Your task to perform on an android device: Clear all items from cart on ebay.com. Search for razer nari on ebay.com, select the first entry, and add it to the cart. Image 0: 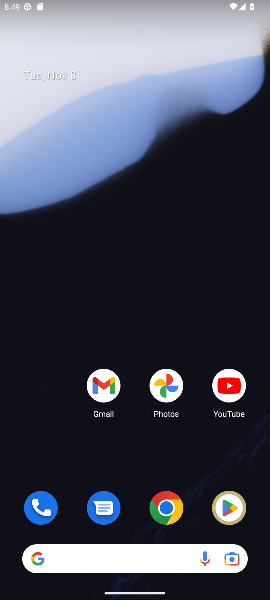
Step 0: click (150, 512)
Your task to perform on an android device: Clear all items from cart on ebay.com. Search for razer nari on ebay.com, select the first entry, and add it to the cart. Image 1: 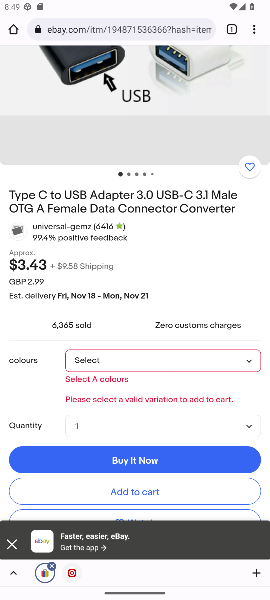
Step 1: click (107, 24)
Your task to perform on an android device: Clear all items from cart on ebay.com. Search for razer nari on ebay.com, select the first entry, and add it to the cart. Image 2: 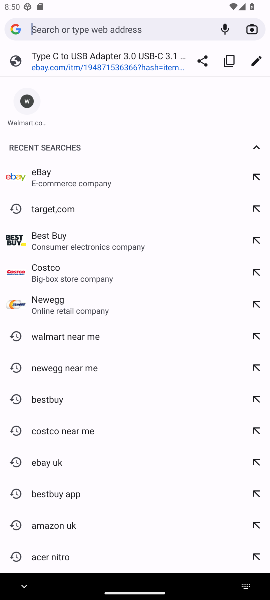
Step 2: click (61, 174)
Your task to perform on an android device: Clear all items from cart on ebay.com. Search for razer nari on ebay.com, select the first entry, and add it to the cart. Image 3: 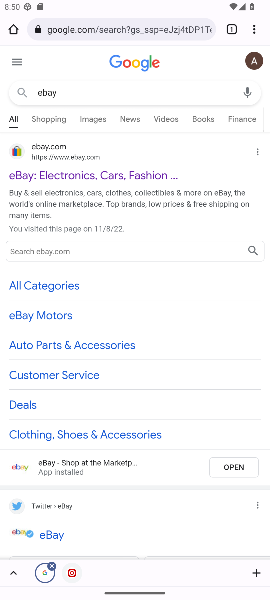
Step 3: click (72, 172)
Your task to perform on an android device: Clear all items from cart on ebay.com. Search for razer nari on ebay.com, select the first entry, and add it to the cart. Image 4: 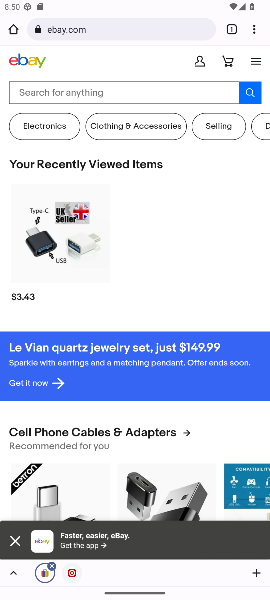
Step 4: click (154, 88)
Your task to perform on an android device: Clear all items from cart on ebay.com. Search for razer nari on ebay.com, select the first entry, and add it to the cart. Image 5: 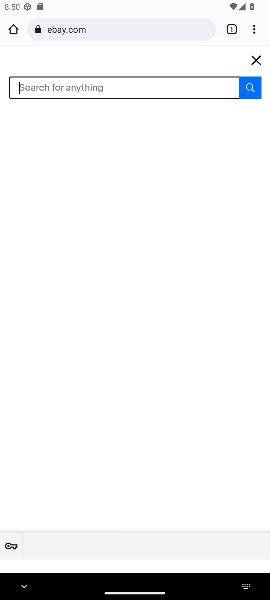
Step 5: type "razer nari"
Your task to perform on an android device: Clear all items from cart on ebay.com. Search for razer nari on ebay.com, select the first entry, and add it to the cart. Image 6: 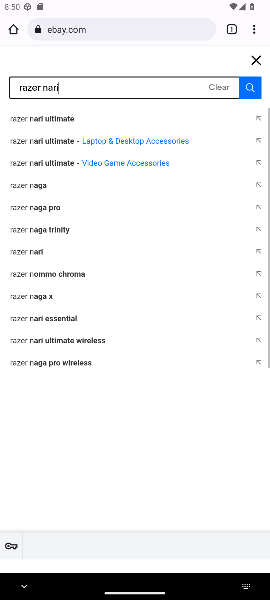
Step 6: click (29, 254)
Your task to perform on an android device: Clear all items from cart on ebay.com. Search for razer nari on ebay.com, select the first entry, and add it to the cart. Image 7: 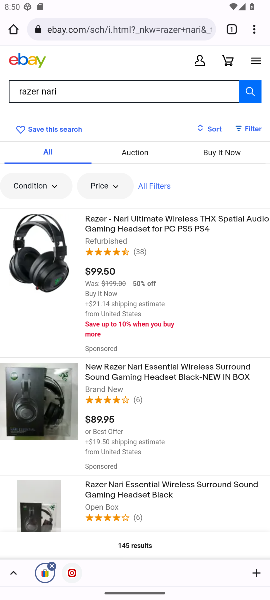
Step 7: click (128, 222)
Your task to perform on an android device: Clear all items from cart on ebay.com. Search for razer nari on ebay.com, select the first entry, and add it to the cart. Image 8: 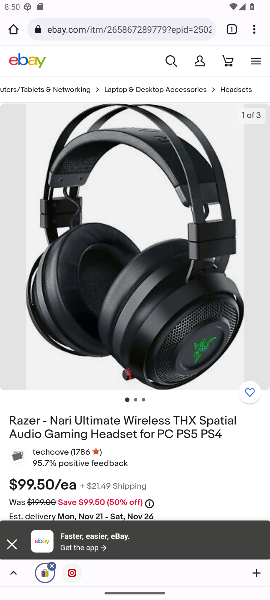
Step 8: drag from (118, 445) to (126, 266)
Your task to perform on an android device: Clear all items from cart on ebay.com. Search for razer nari on ebay.com, select the first entry, and add it to the cart. Image 9: 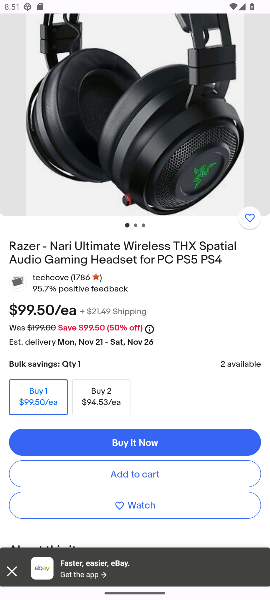
Step 9: click (131, 470)
Your task to perform on an android device: Clear all items from cart on ebay.com. Search for razer nari on ebay.com, select the first entry, and add it to the cart. Image 10: 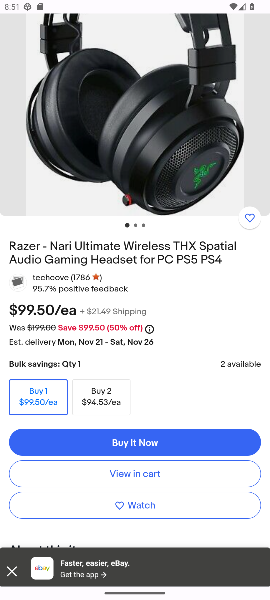
Step 10: click (148, 471)
Your task to perform on an android device: Clear all items from cart on ebay.com. Search for razer nari on ebay.com, select the first entry, and add it to the cart. Image 11: 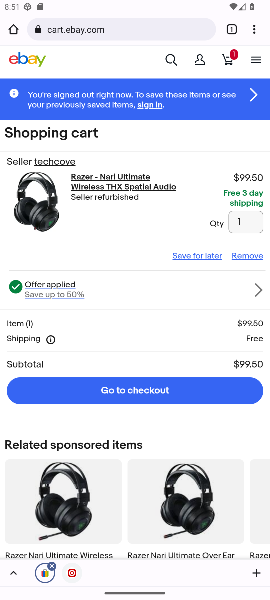
Step 11: task complete